Your task to perform on an android device: Where can I buy a nice beach bag? Image 0: 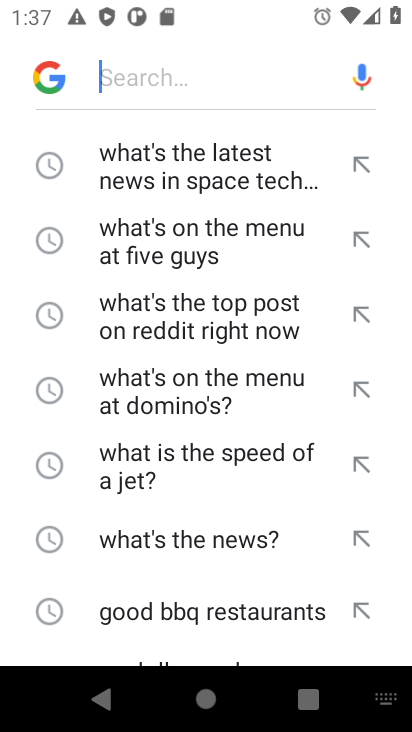
Step 0: press home button
Your task to perform on an android device: Where can I buy a nice beach bag? Image 1: 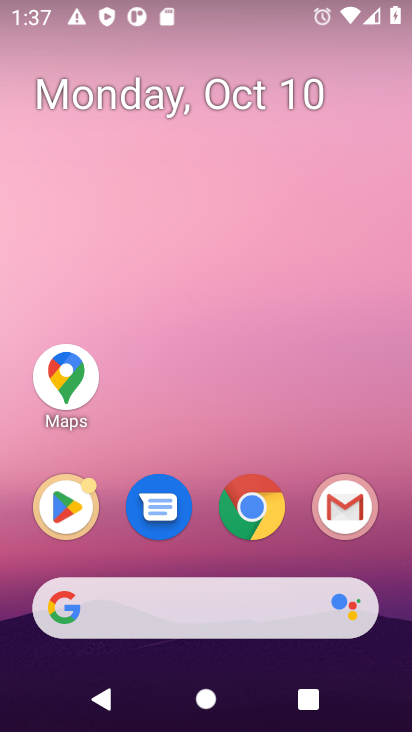
Step 1: click (241, 609)
Your task to perform on an android device: Where can I buy a nice beach bag? Image 2: 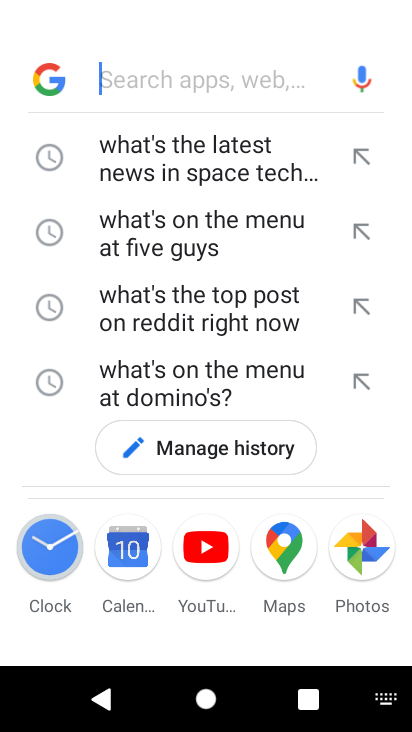
Step 2: type "Where can I buy a nice beach bag"
Your task to perform on an android device: Where can I buy a nice beach bag? Image 3: 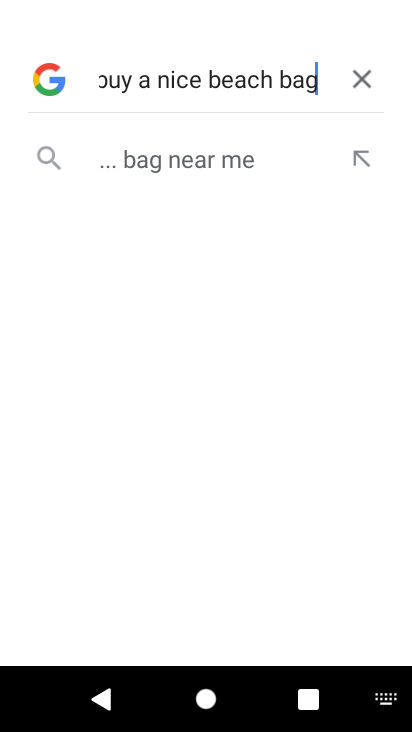
Step 3: press enter
Your task to perform on an android device: Where can I buy a nice beach bag? Image 4: 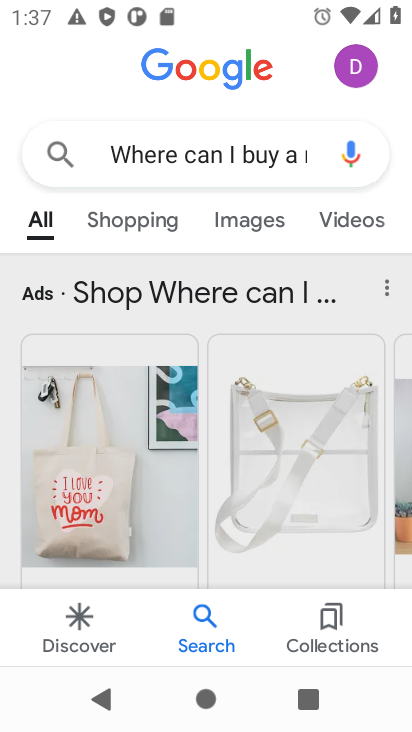
Step 4: task complete